Your task to perform on an android device: Open maps Image 0: 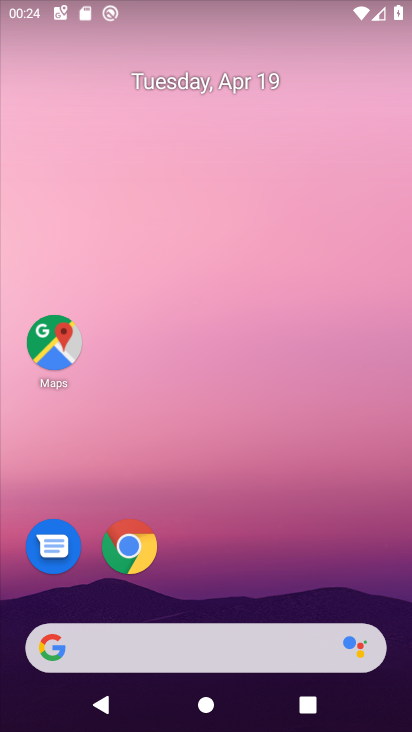
Step 0: drag from (214, 464) to (253, 7)
Your task to perform on an android device: Open maps Image 1: 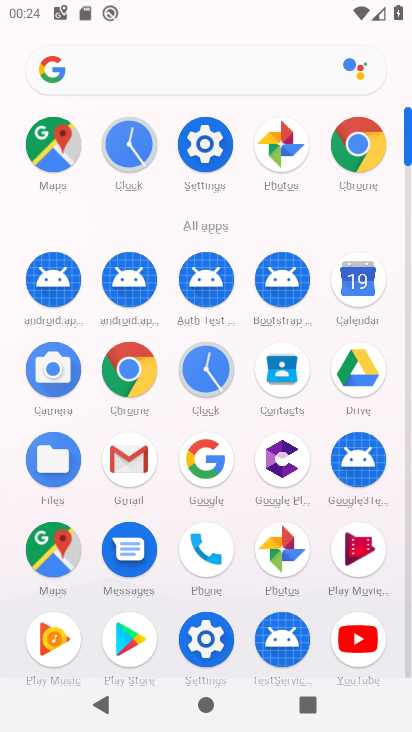
Step 1: click (44, 545)
Your task to perform on an android device: Open maps Image 2: 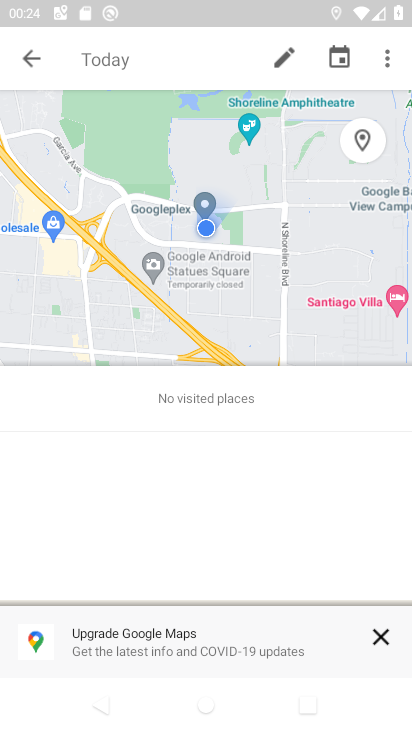
Step 2: click (23, 56)
Your task to perform on an android device: Open maps Image 3: 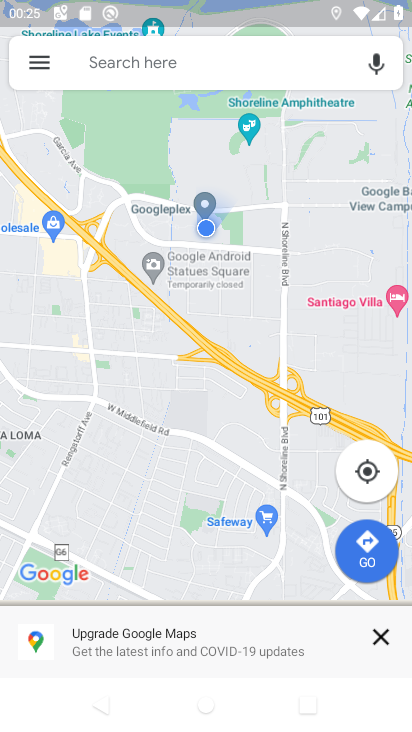
Step 3: click (380, 630)
Your task to perform on an android device: Open maps Image 4: 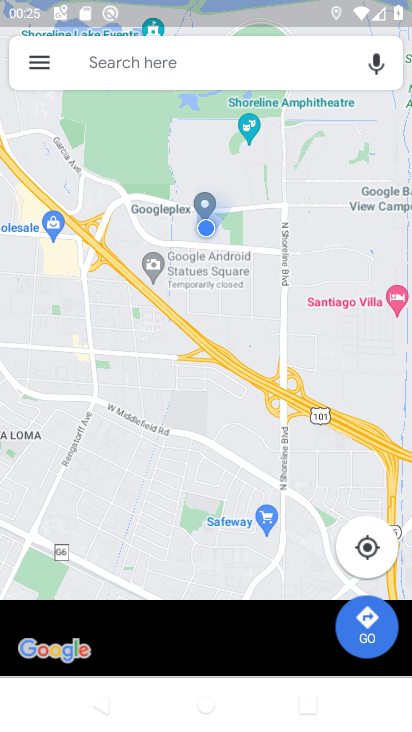
Step 4: click (39, 55)
Your task to perform on an android device: Open maps Image 5: 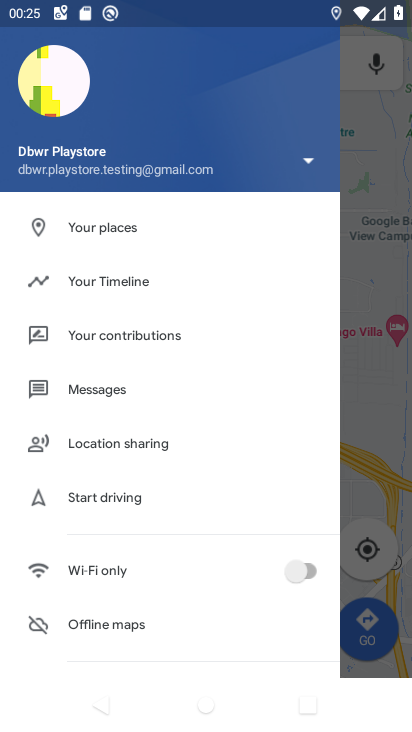
Step 5: task complete